Your task to perform on an android device: create a new album in the google photos Image 0: 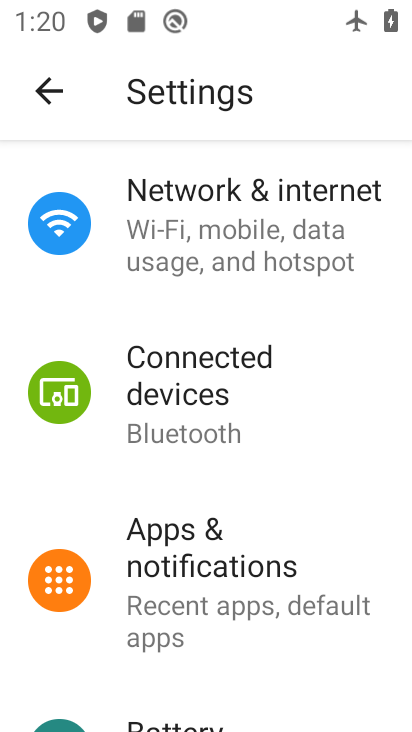
Step 0: press home button
Your task to perform on an android device: create a new album in the google photos Image 1: 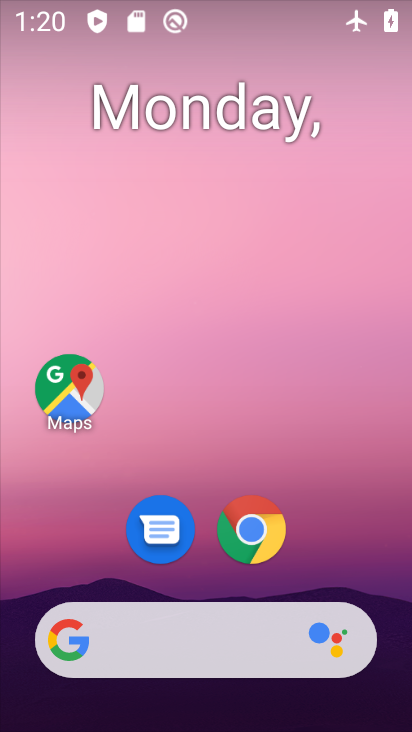
Step 1: drag from (353, 513) to (354, 17)
Your task to perform on an android device: create a new album in the google photos Image 2: 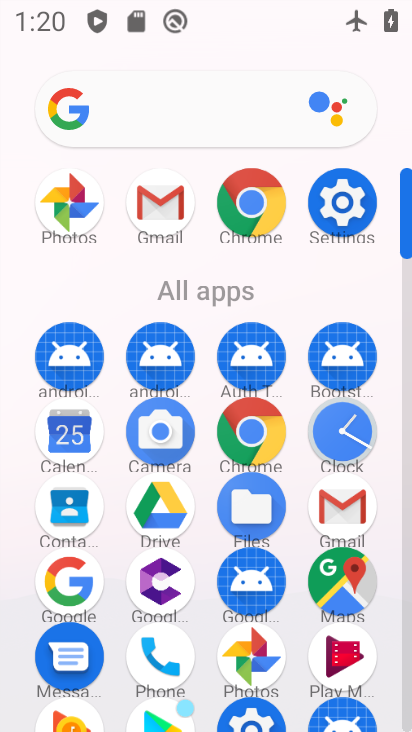
Step 2: click (65, 183)
Your task to perform on an android device: create a new album in the google photos Image 3: 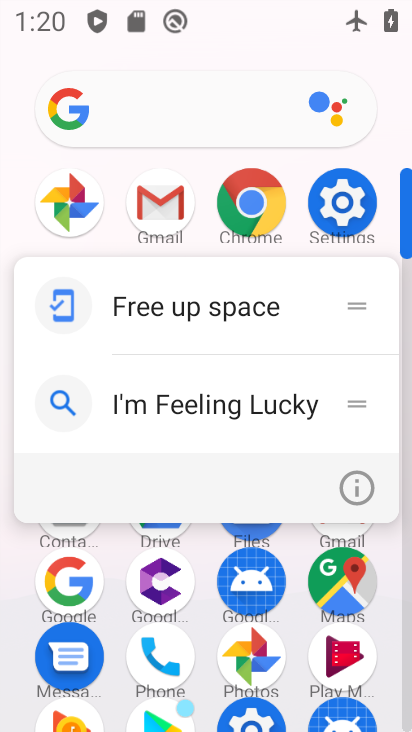
Step 3: click (65, 182)
Your task to perform on an android device: create a new album in the google photos Image 4: 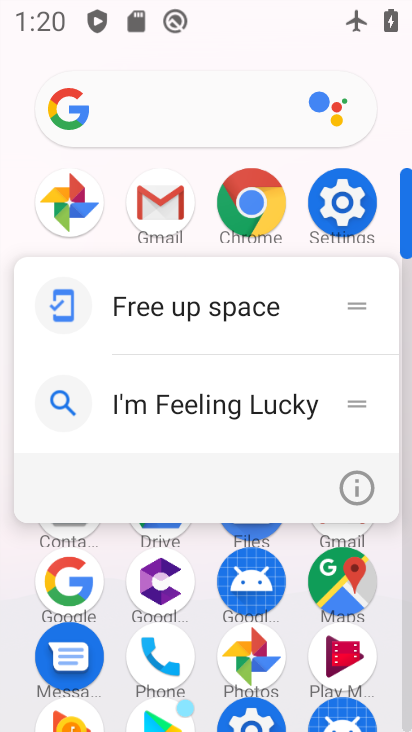
Step 4: click (71, 202)
Your task to perform on an android device: create a new album in the google photos Image 5: 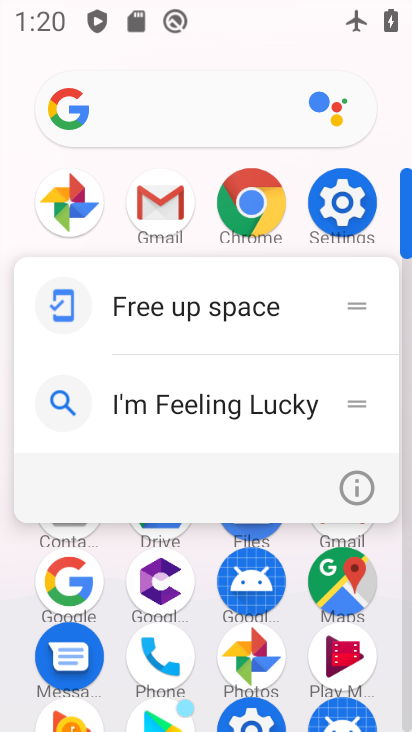
Step 5: click (71, 201)
Your task to perform on an android device: create a new album in the google photos Image 6: 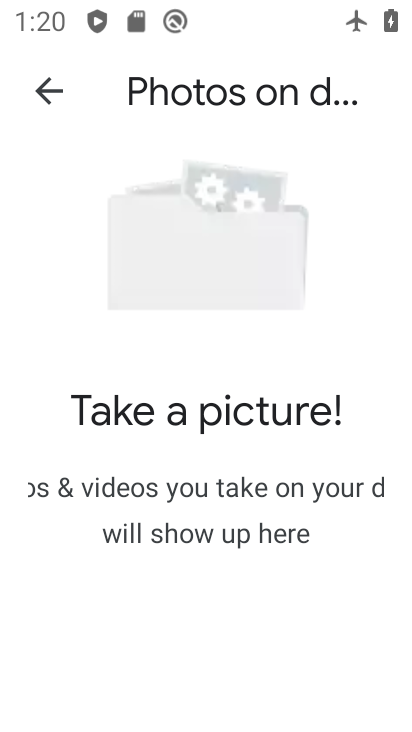
Step 6: click (71, 200)
Your task to perform on an android device: create a new album in the google photos Image 7: 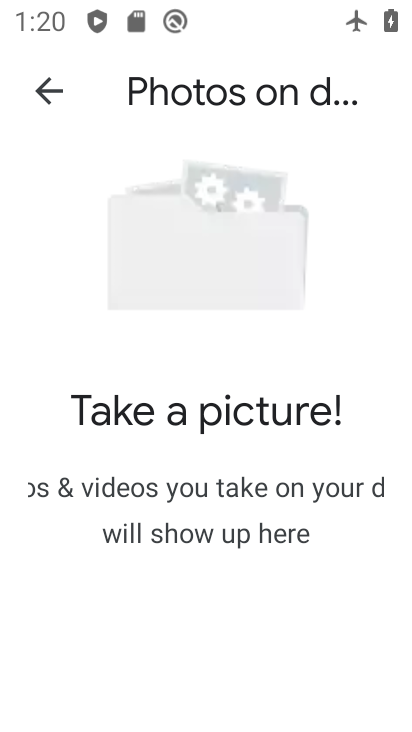
Step 7: click (45, 92)
Your task to perform on an android device: create a new album in the google photos Image 8: 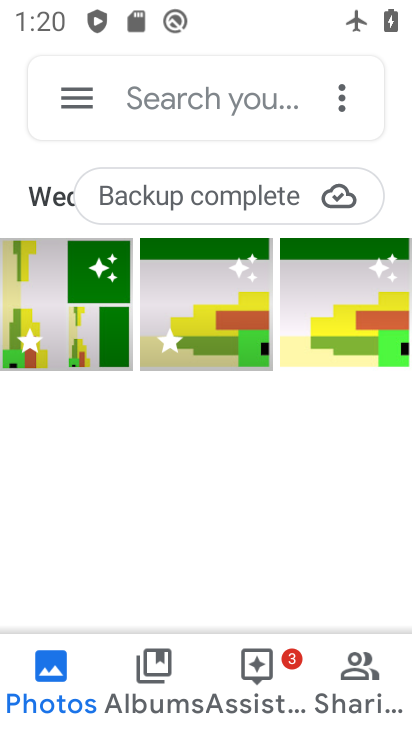
Step 8: click (154, 659)
Your task to perform on an android device: create a new album in the google photos Image 9: 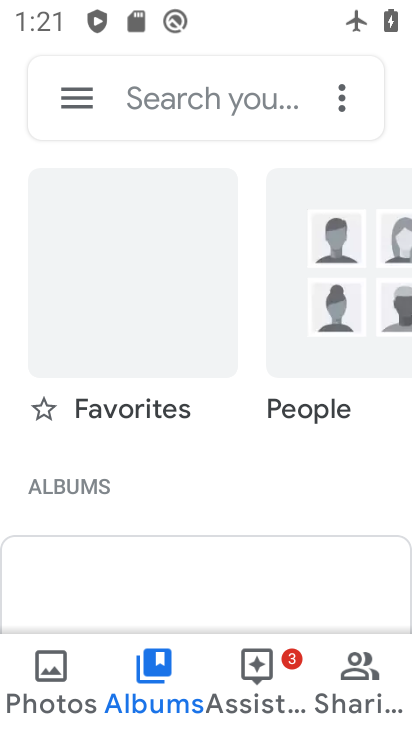
Step 9: drag from (255, 515) to (308, 151)
Your task to perform on an android device: create a new album in the google photos Image 10: 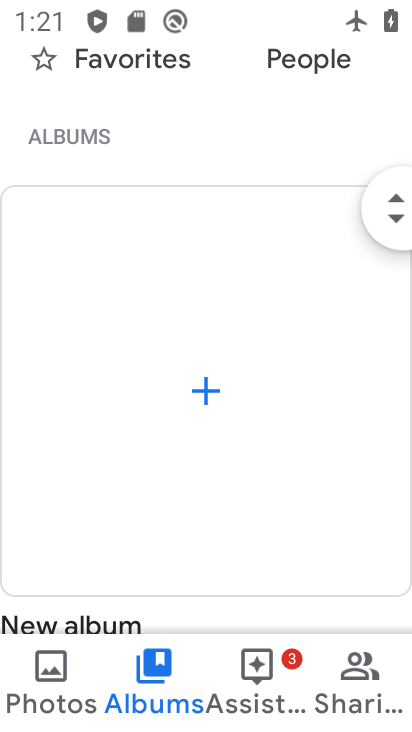
Step 10: click (205, 389)
Your task to perform on an android device: create a new album in the google photos Image 11: 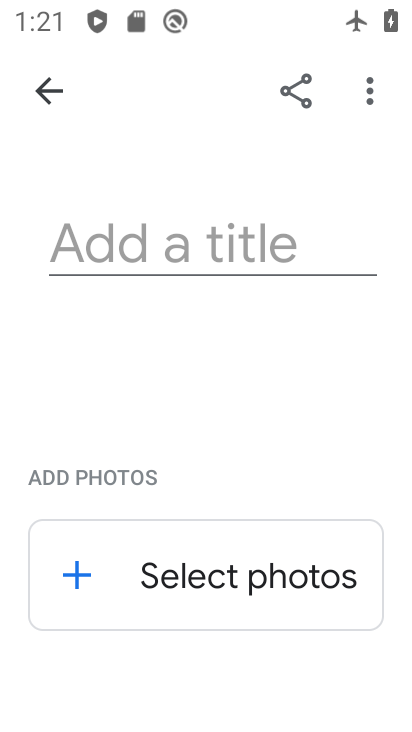
Step 11: click (179, 230)
Your task to perform on an android device: create a new album in the google photos Image 12: 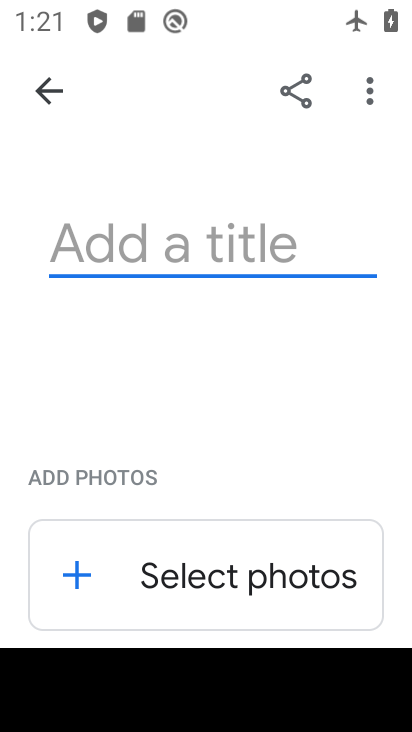
Step 12: type "parveen"
Your task to perform on an android device: create a new album in the google photos Image 13: 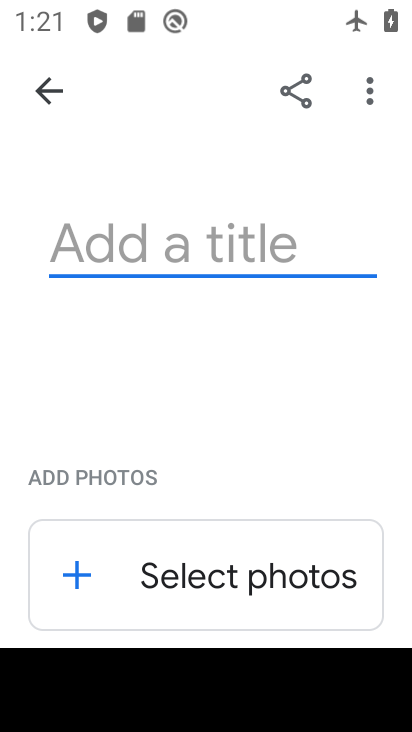
Step 13: click (186, 555)
Your task to perform on an android device: create a new album in the google photos Image 14: 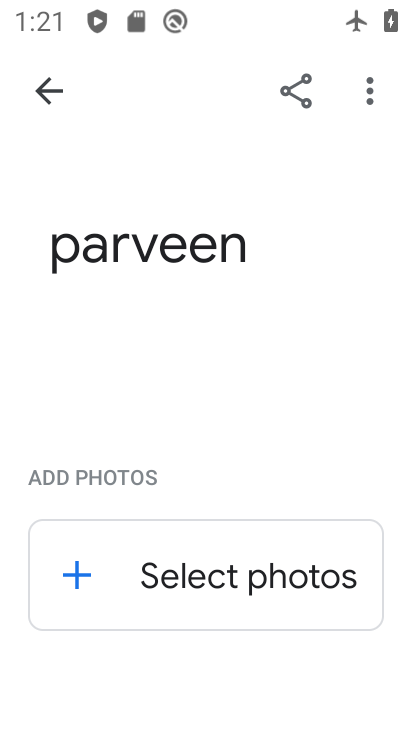
Step 14: click (184, 569)
Your task to perform on an android device: create a new album in the google photos Image 15: 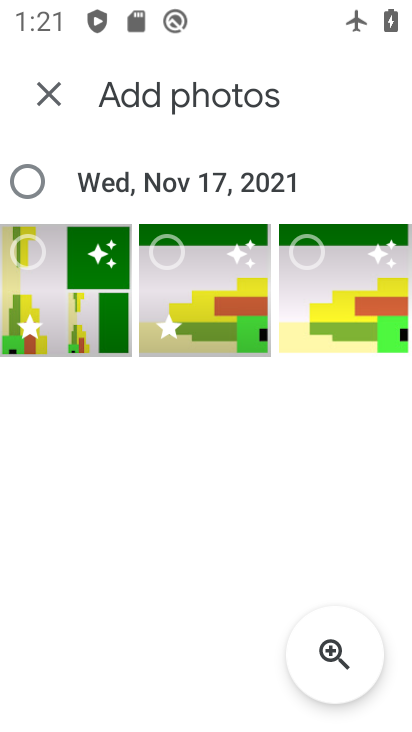
Step 15: click (34, 248)
Your task to perform on an android device: create a new album in the google photos Image 16: 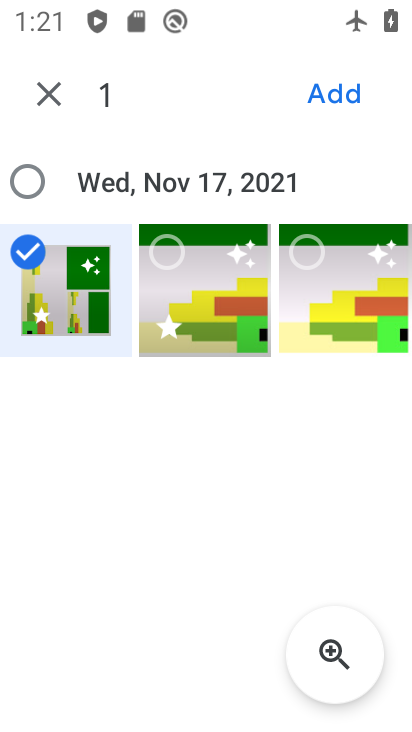
Step 16: click (188, 265)
Your task to perform on an android device: create a new album in the google photos Image 17: 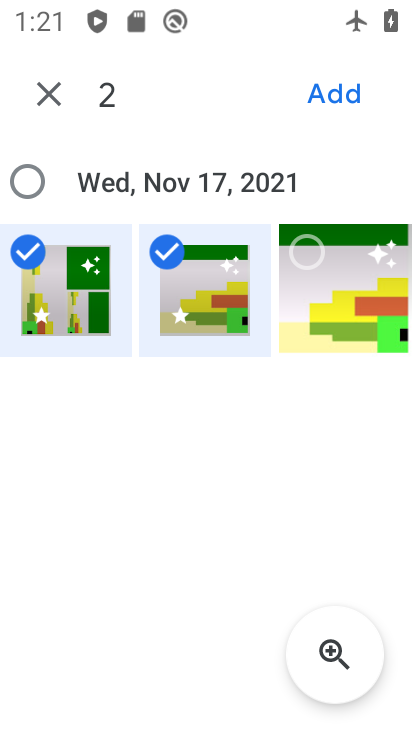
Step 17: click (314, 265)
Your task to perform on an android device: create a new album in the google photos Image 18: 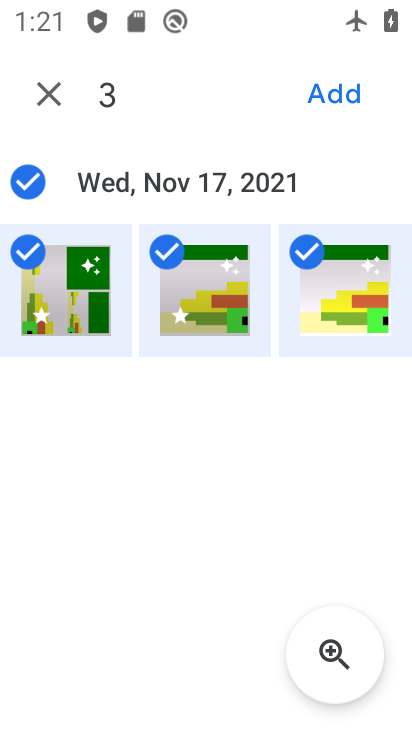
Step 18: click (346, 97)
Your task to perform on an android device: create a new album in the google photos Image 19: 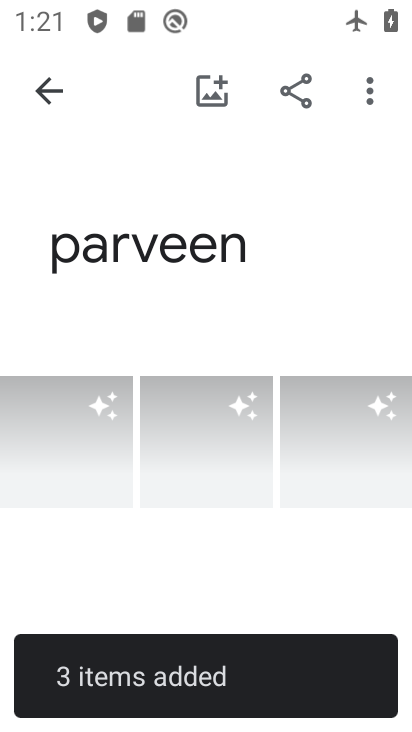
Step 19: task complete